Your task to perform on an android device: change the clock display to digital Image 0: 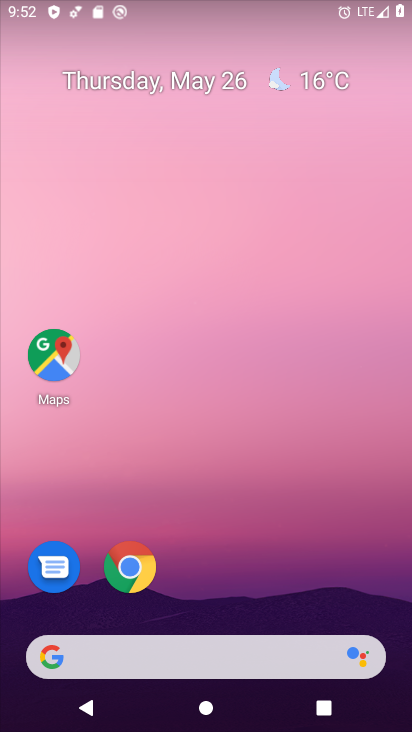
Step 0: drag from (401, 707) to (378, 249)
Your task to perform on an android device: change the clock display to digital Image 1: 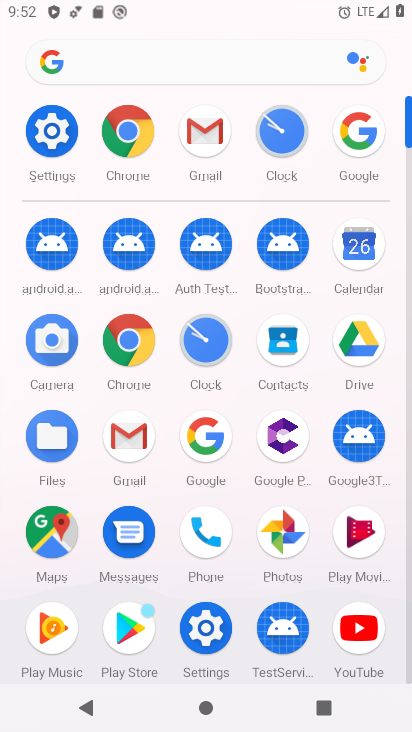
Step 1: click (209, 345)
Your task to perform on an android device: change the clock display to digital Image 2: 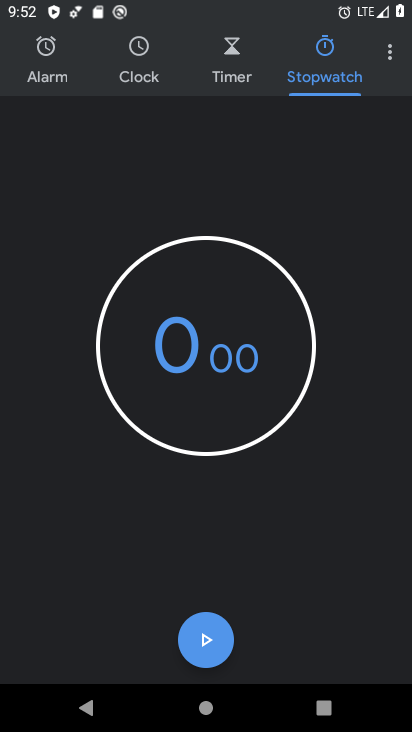
Step 2: click (387, 52)
Your task to perform on an android device: change the clock display to digital Image 3: 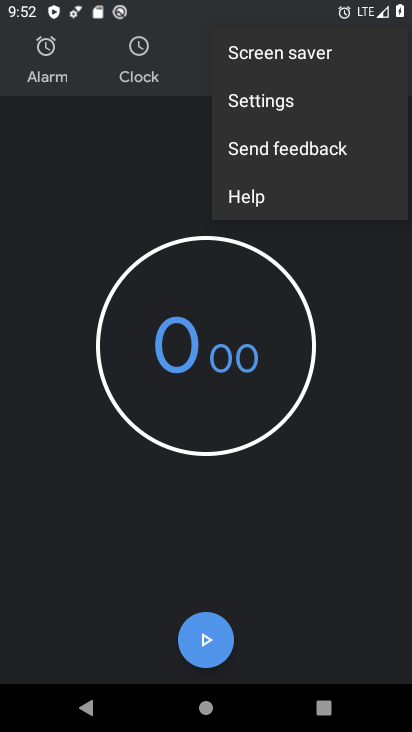
Step 3: click (263, 97)
Your task to perform on an android device: change the clock display to digital Image 4: 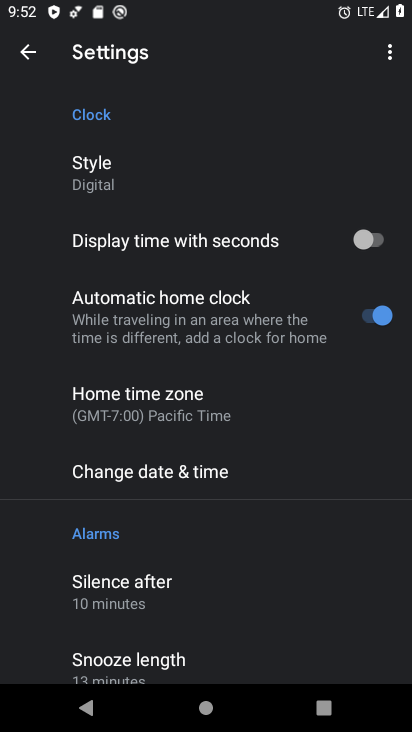
Step 4: click (70, 165)
Your task to perform on an android device: change the clock display to digital Image 5: 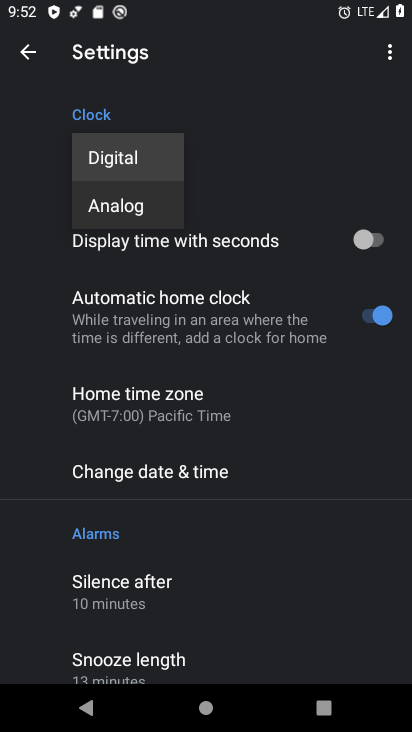
Step 5: click (92, 147)
Your task to perform on an android device: change the clock display to digital Image 6: 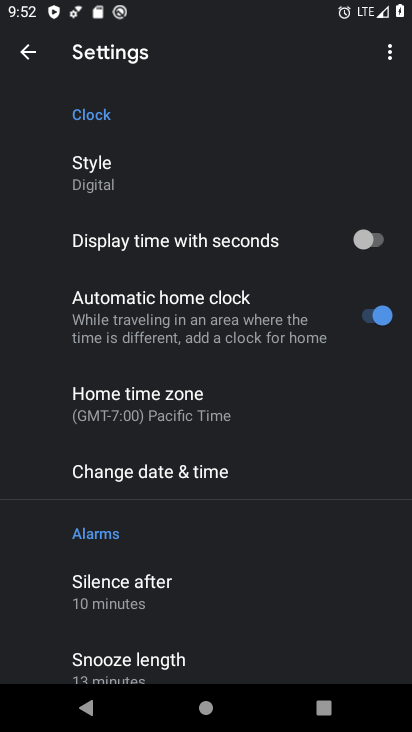
Step 6: task complete